Your task to perform on an android device: choose inbox layout in the gmail app Image 0: 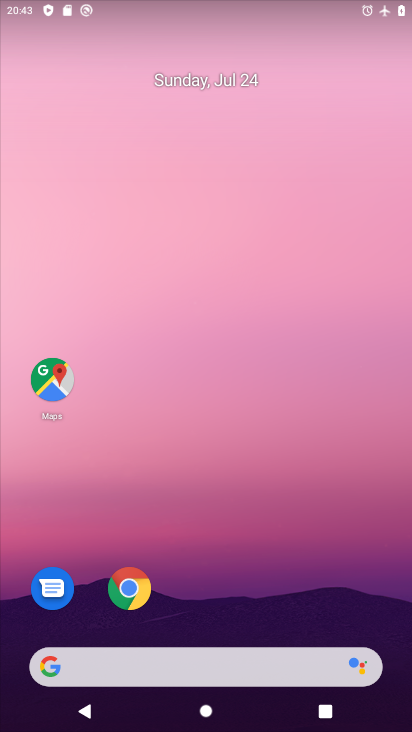
Step 0: drag from (213, 657) to (209, 58)
Your task to perform on an android device: choose inbox layout in the gmail app Image 1: 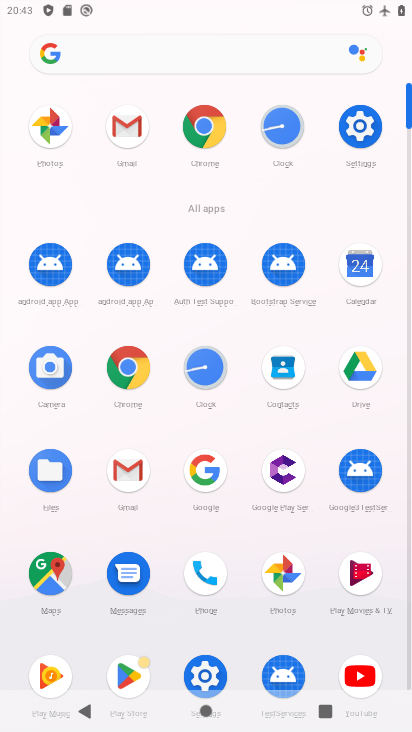
Step 1: click (109, 117)
Your task to perform on an android device: choose inbox layout in the gmail app Image 2: 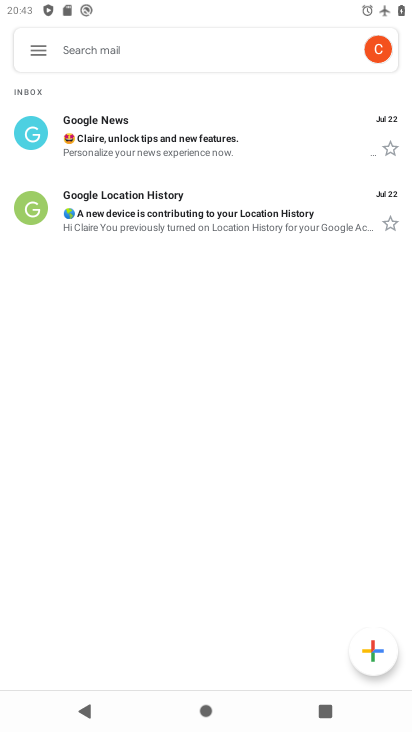
Step 2: click (35, 44)
Your task to perform on an android device: choose inbox layout in the gmail app Image 3: 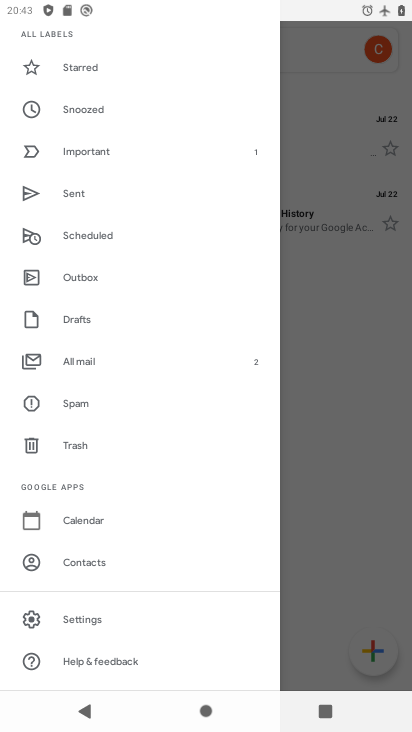
Step 3: click (100, 613)
Your task to perform on an android device: choose inbox layout in the gmail app Image 4: 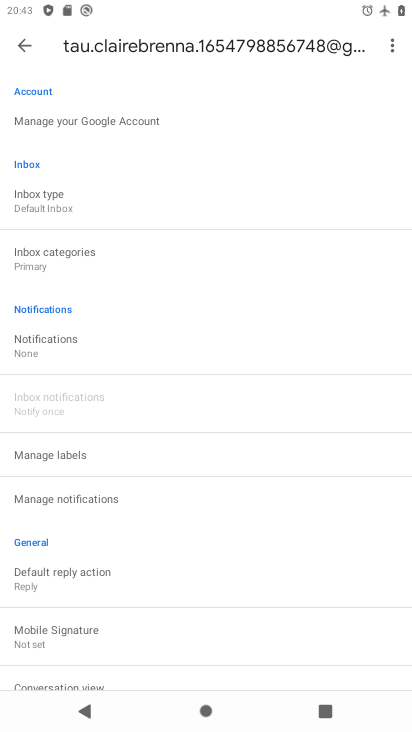
Step 4: click (92, 211)
Your task to perform on an android device: choose inbox layout in the gmail app Image 5: 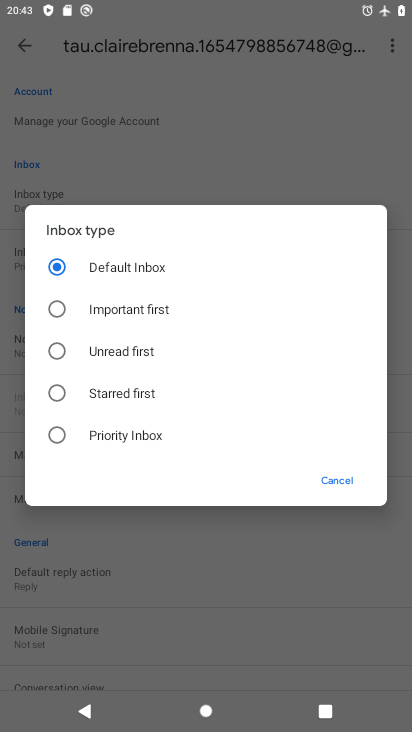
Step 5: click (68, 383)
Your task to perform on an android device: choose inbox layout in the gmail app Image 6: 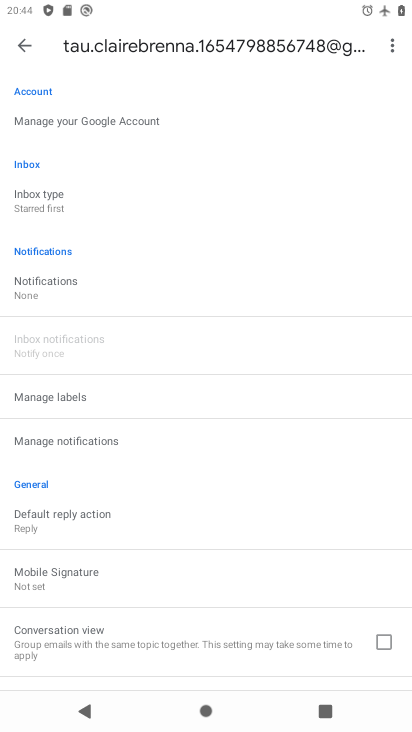
Step 6: task complete